Your task to perform on an android device: What is the news today? Image 0: 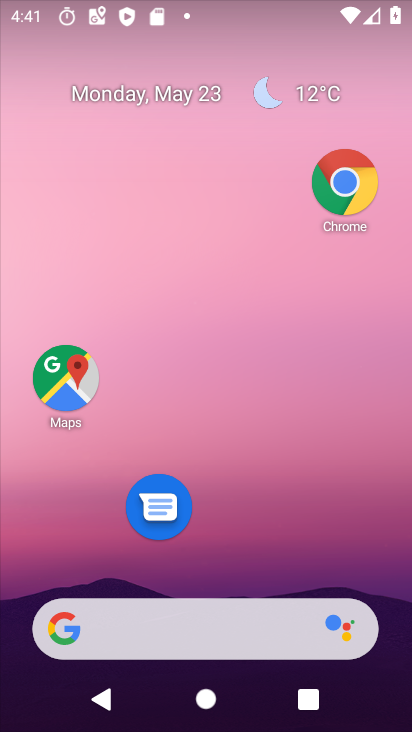
Step 0: click (213, 619)
Your task to perform on an android device: What is the news today? Image 1: 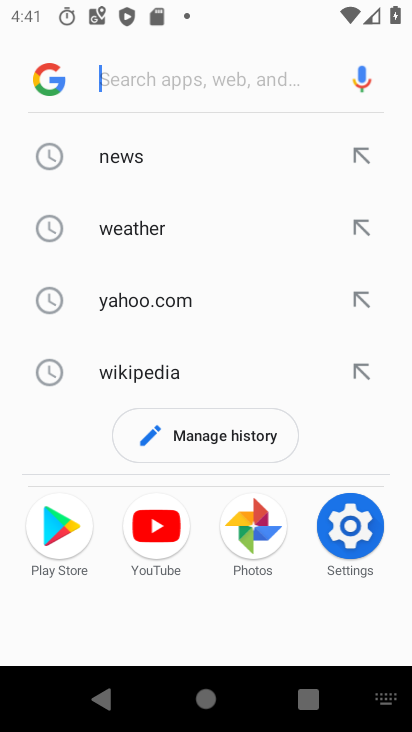
Step 1: click (97, 158)
Your task to perform on an android device: What is the news today? Image 2: 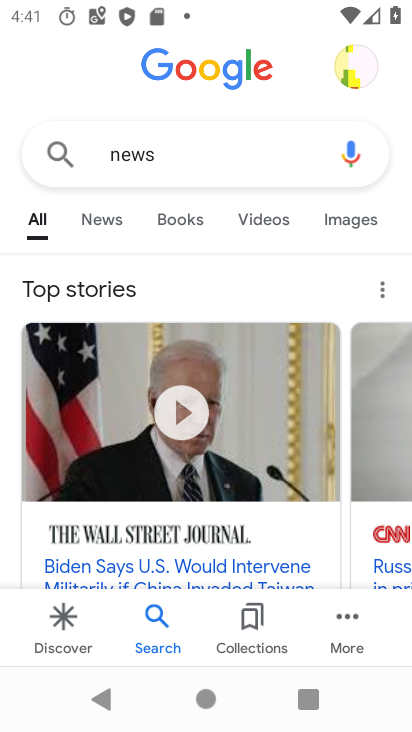
Step 2: task complete